Your task to perform on an android device: Open Chrome and go to the settings page Image 0: 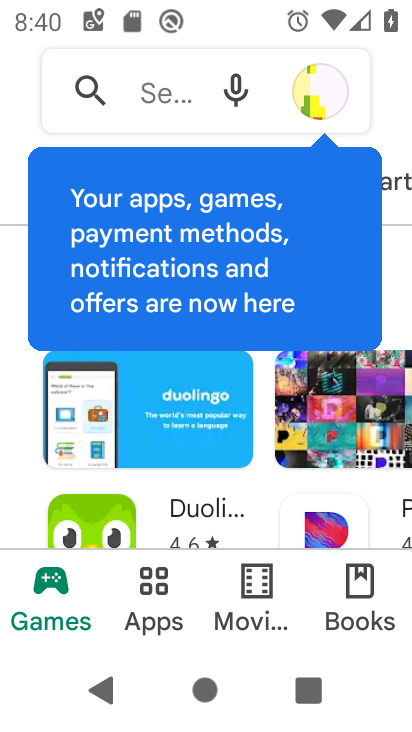
Step 0: click (205, 691)
Your task to perform on an android device: Open Chrome and go to the settings page Image 1: 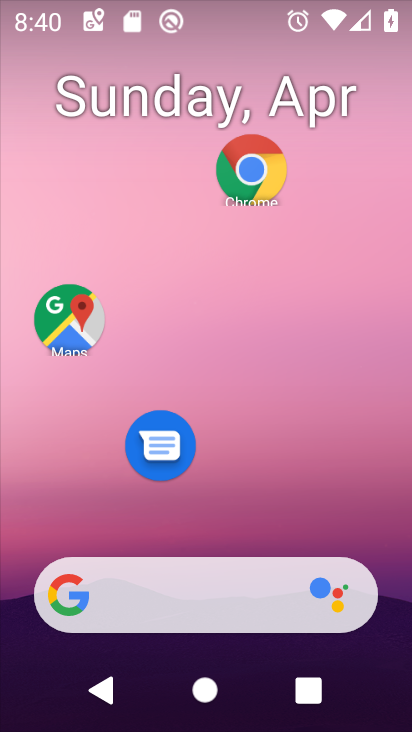
Step 1: click (252, 173)
Your task to perform on an android device: Open Chrome and go to the settings page Image 2: 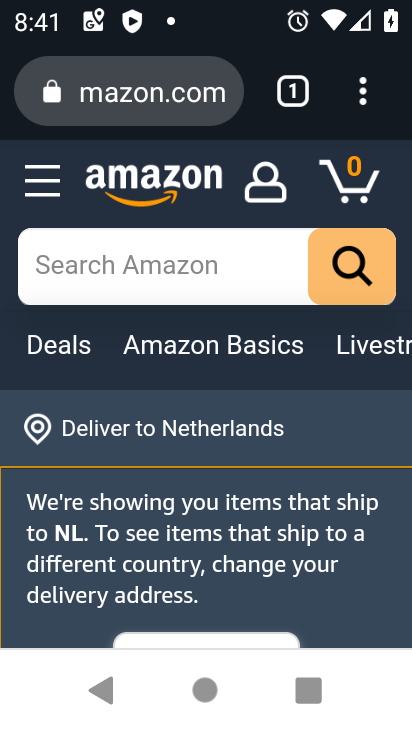
Step 2: click (358, 86)
Your task to perform on an android device: Open Chrome and go to the settings page Image 3: 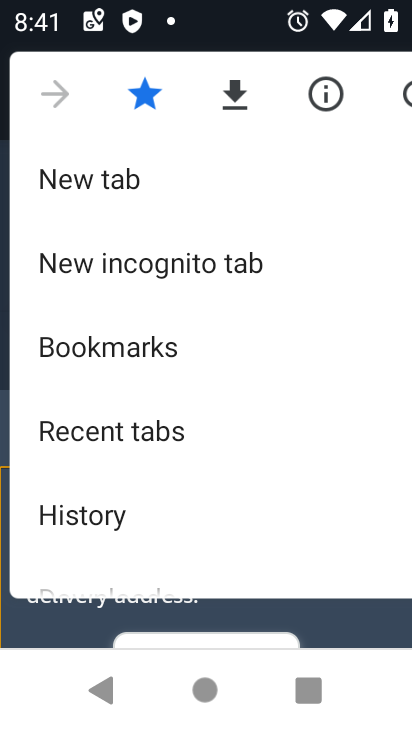
Step 3: drag from (238, 501) to (300, 69)
Your task to perform on an android device: Open Chrome and go to the settings page Image 4: 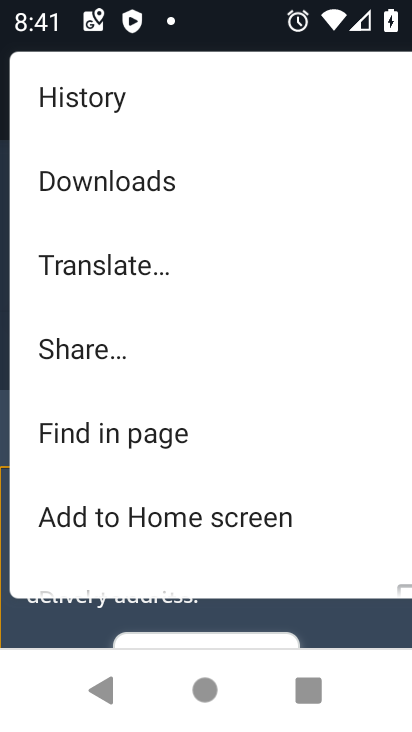
Step 4: drag from (272, 439) to (286, 153)
Your task to perform on an android device: Open Chrome and go to the settings page Image 5: 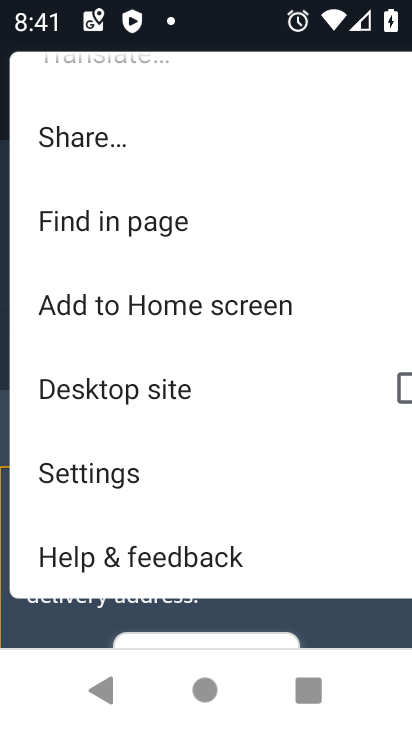
Step 5: click (124, 473)
Your task to perform on an android device: Open Chrome and go to the settings page Image 6: 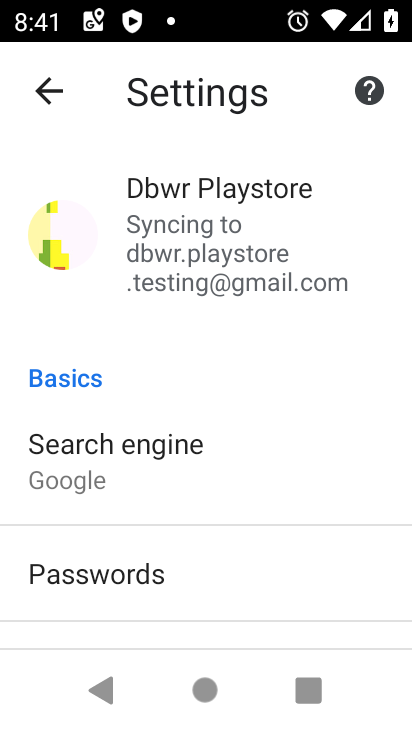
Step 6: task complete